Your task to perform on an android device: toggle improve location accuracy Image 0: 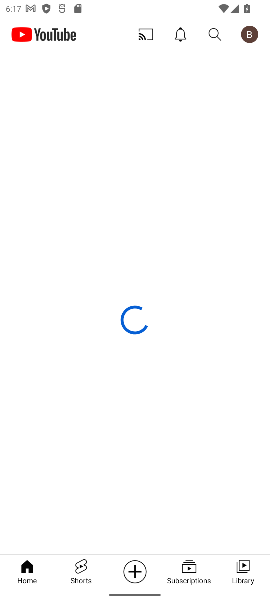
Step 0: press home button
Your task to perform on an android device: toggle improve location accuracy Image 1: 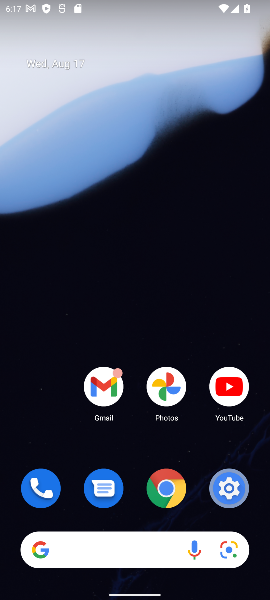
Step 1: drag from (150, 456) to (121, 152)
Your task to perform on an android device: toggle improve location accuracy Image 2: 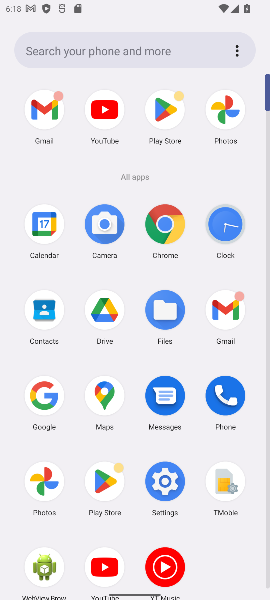
Step 2: click (170, 491)
Your task to perform on an android device: toggle improve location accuracy Image 3: 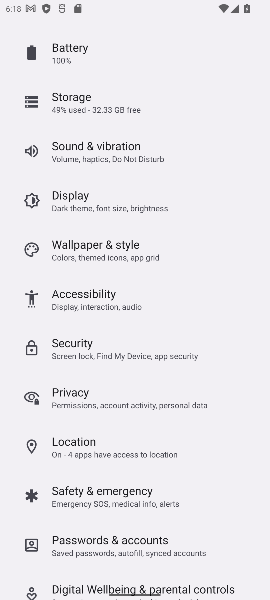
Step 3: click (69, 452)
Your task to perform on an android device: toggle improve location accuracy Image 4: 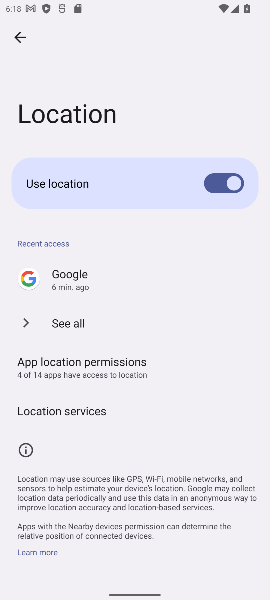
Step 4: drag from (78, 483) to (79, 39)
Your task to perform on an android device: toggle improve location accuracy Image 5: 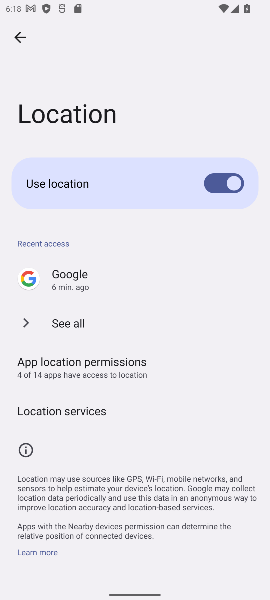
Step 5: click (18, 39)
Your task to perform on an android device: toggle improve location accuracy Image 6: 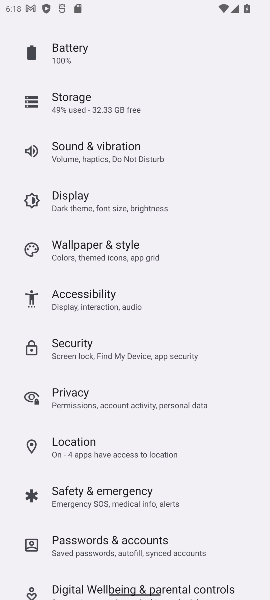
Step 6: drag from (107, 185) to (184, 531)
Your task to perform on an android device: toggle improve location accuracy Image 7: 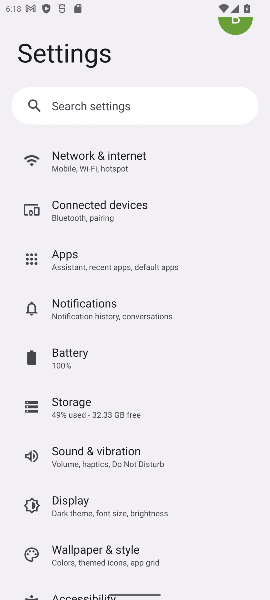
Step 7: drag from (145, 535) to (134, 102)
Your task to perform on an android device: toggle improve location accuracy Image 8: 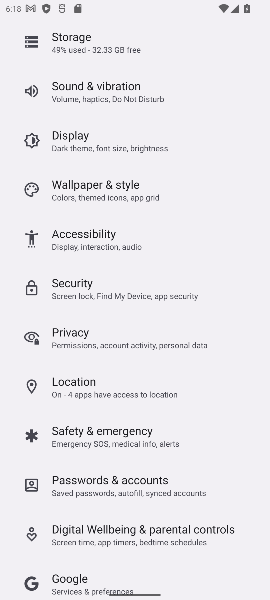
Step 8: click (88, 377)
Your task to perform on an android device: toggle improve location accuracy Image 9: 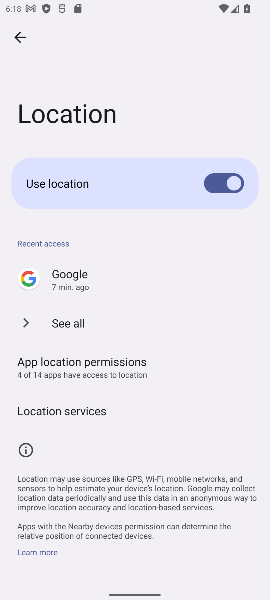
Step 9: task complete